Your task to perform on an android device: open app "Spotify: Music and Podcasts" (install if not already installed) Image 0: 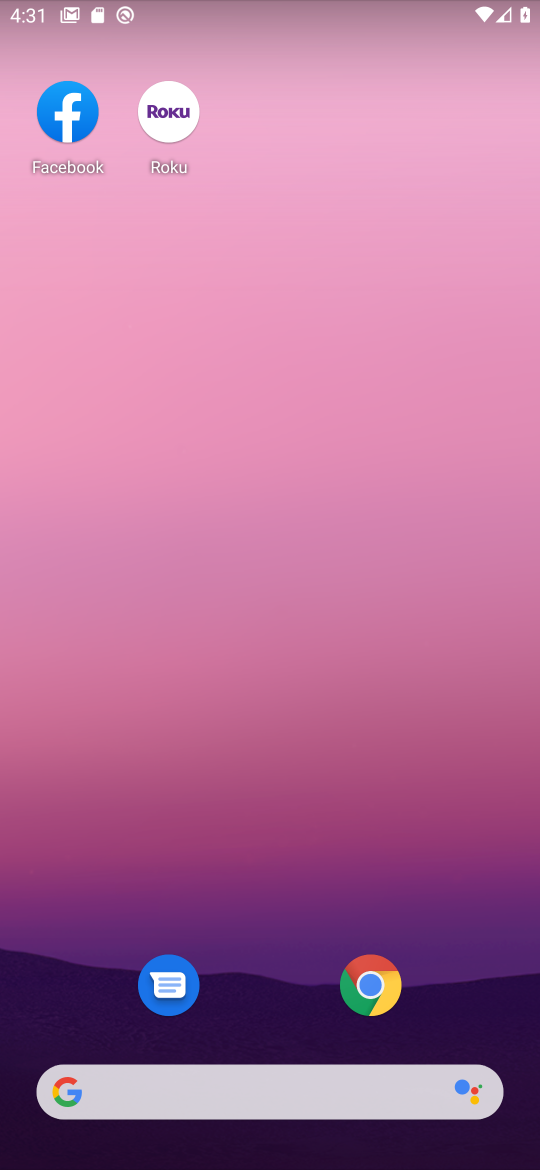
Step 0: drag from (271, 903) to (245, 308)
Your task to perform on an android device: open app "Spotify: Music and Podcasts" (install if not already installed) Image 1: 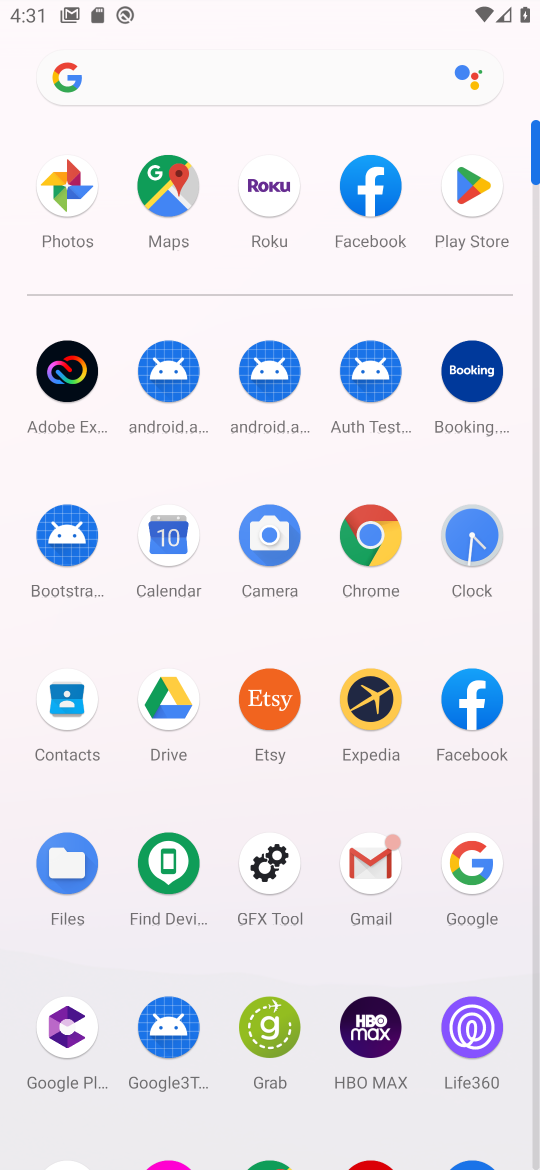
Step 1: click (472, 202)
Your task to perform on an android device: open app "Spotify: Music and Podcasts" (install if not already installed) Image 2: 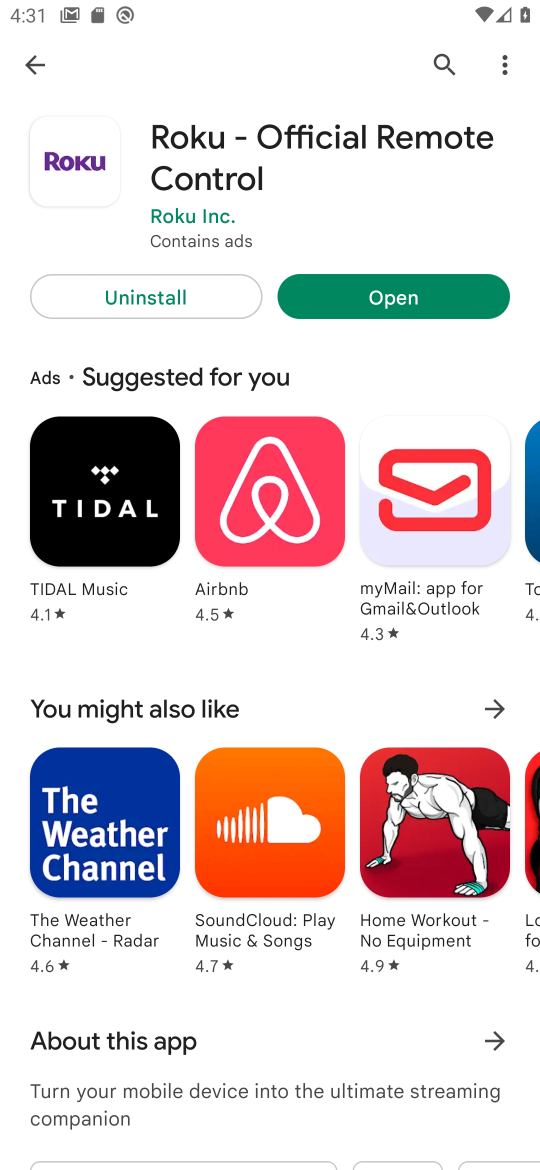
Step 2: click (30, 59)
Your task to perform on an android device: open app "Spotify: Music and Podcasts" (install if not already installed) Image 3: 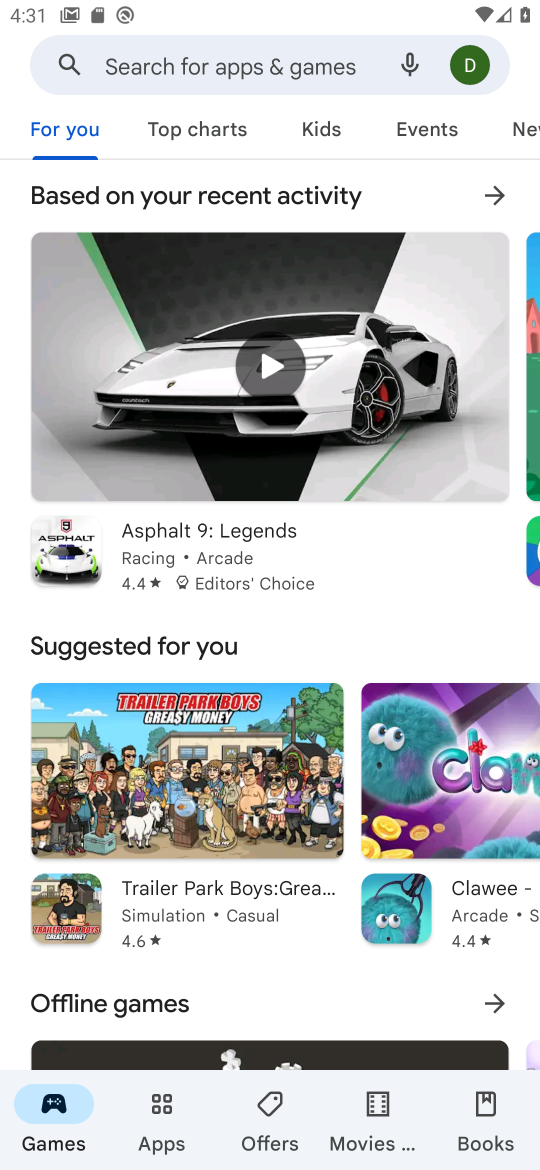
Step 3: click (230, 67)
Your task to perform on an android device: open app "Spotify: Music and Podcasts" (install if not already installed) Image 4: 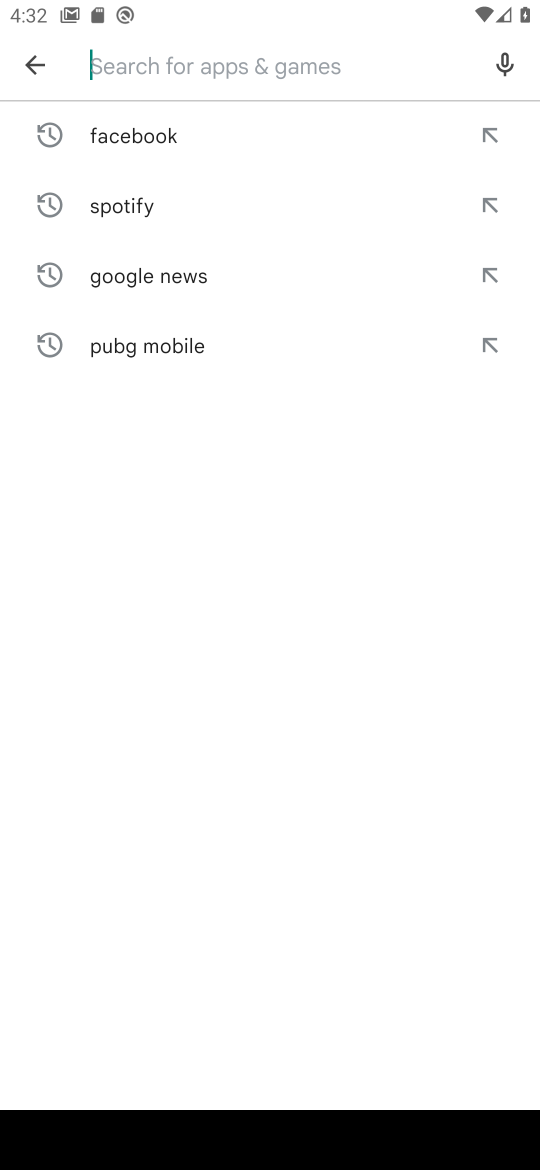
Step 4: type "Spotify"
Your task to perform on an android device: open app "Spotify: Music and Podcasts" (install if not already installed) Image 5: 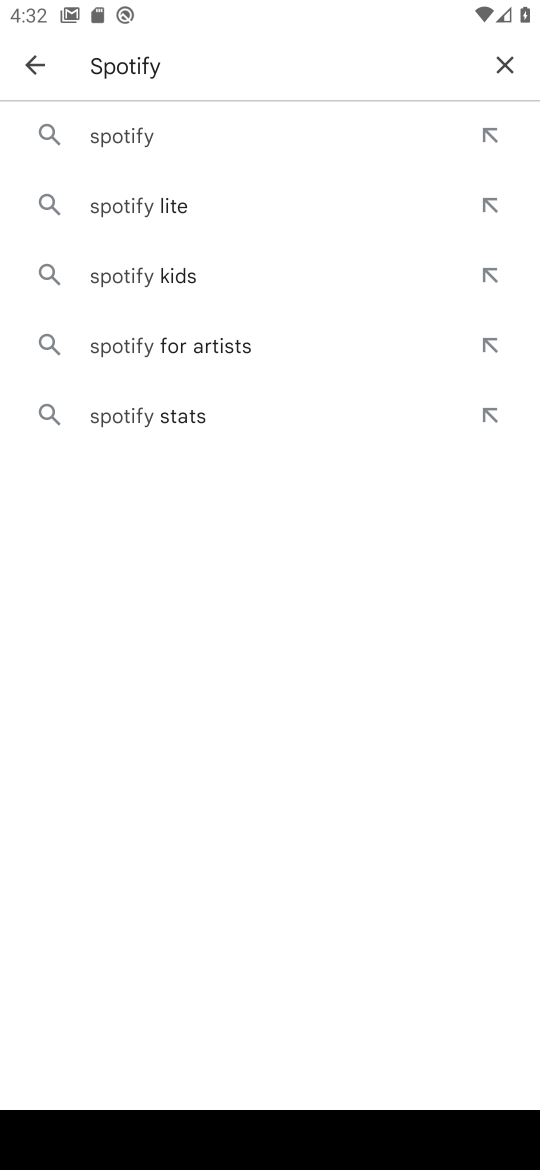
Step 5: click (140, 139)
Your task to perform on an android device: open app "Spotify: Music and Podcasts" (install if not already installed) Image 6: 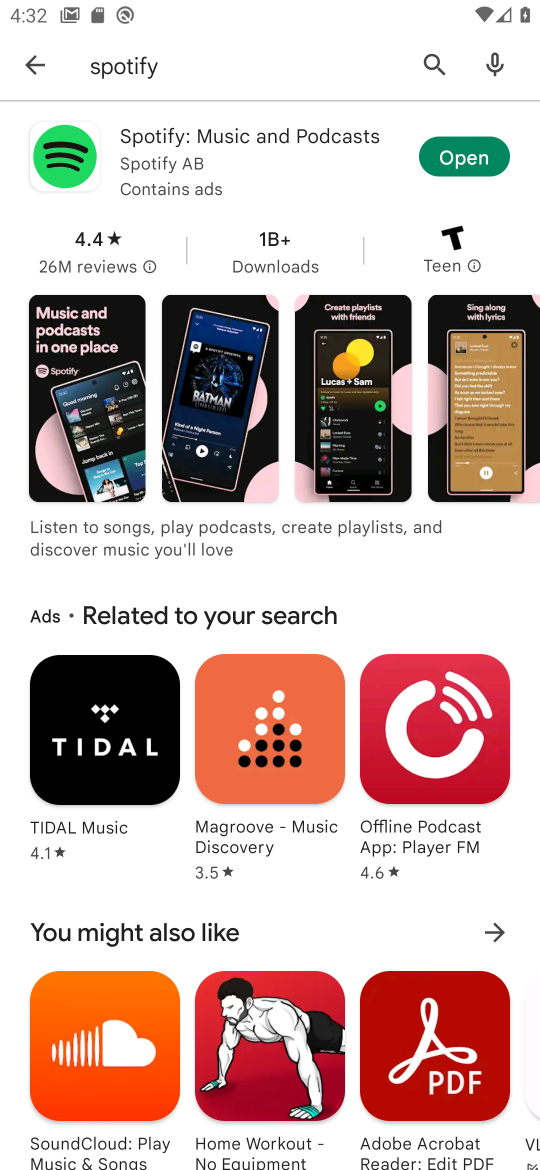
Step 6: click (471, 161)
Your task to perform on an android device: open app "Spotify: Music and Podcasts" (install if not already installed) Image 7: 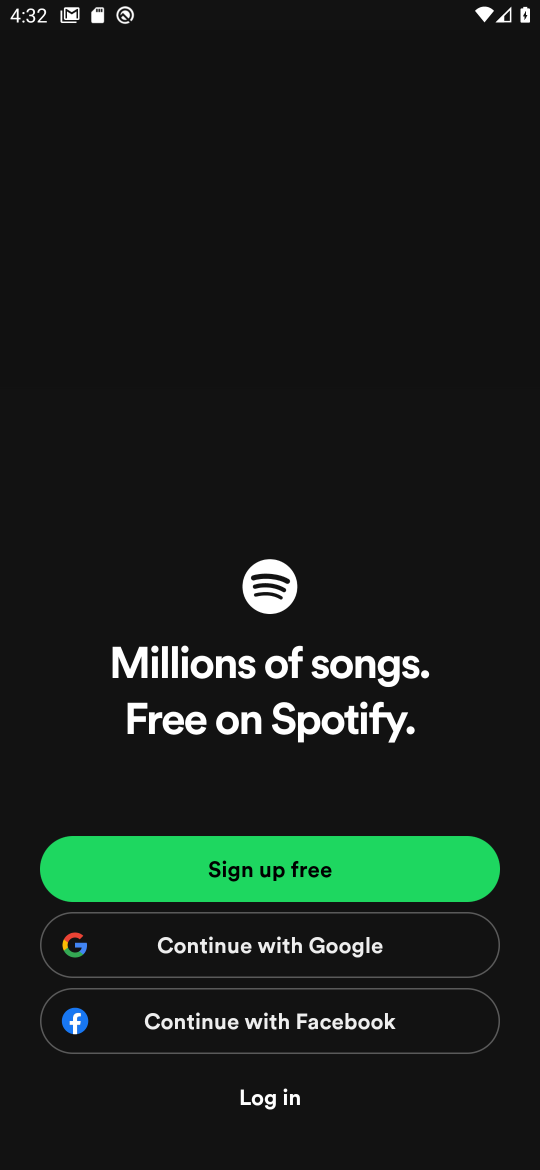
Step 7: task complete